Your task to perform on an android device: turn off location Image 0: 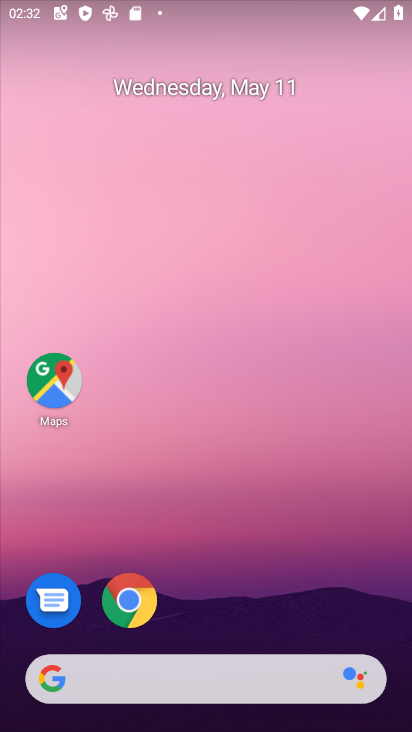
Step 0: drag from (219, 726) to (295, 5)
Your task to perform on an android device: turn off location Image 1: 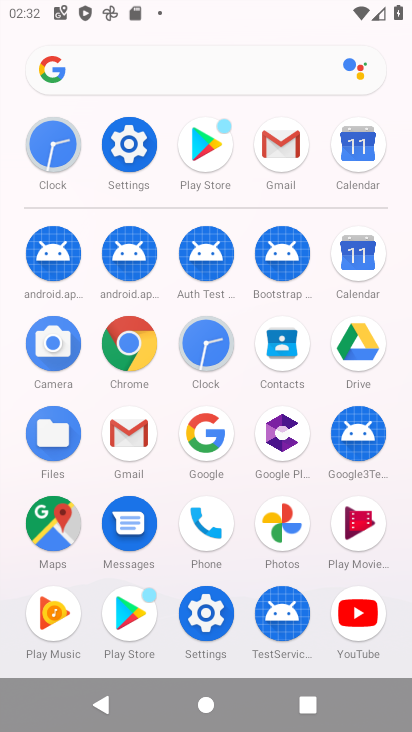
Step 1: click (134, 147)
Your task to perform on an android device: turn off location Image 2: 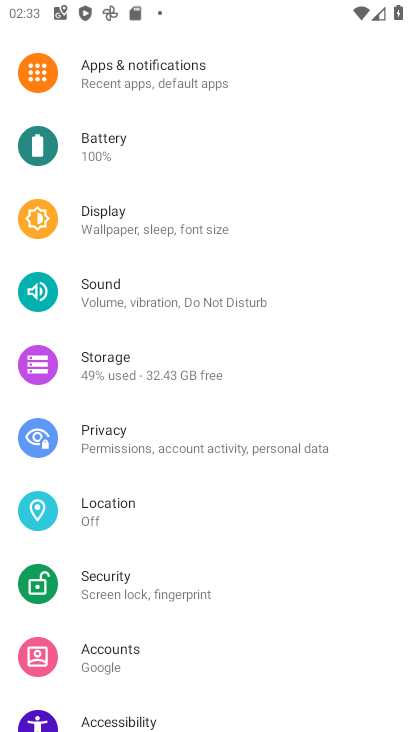
Step 2: click (120, 516)
Your task to perform on an android device: turn off location Image 3: 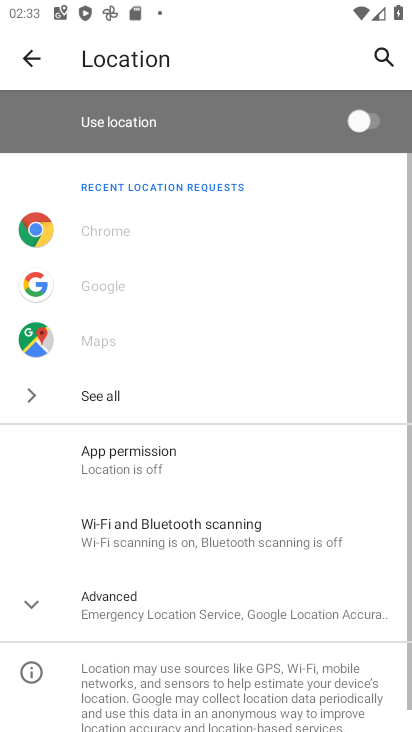
Step 3: task complete